Your task to perform on an android device: Open Amazon Image 0: 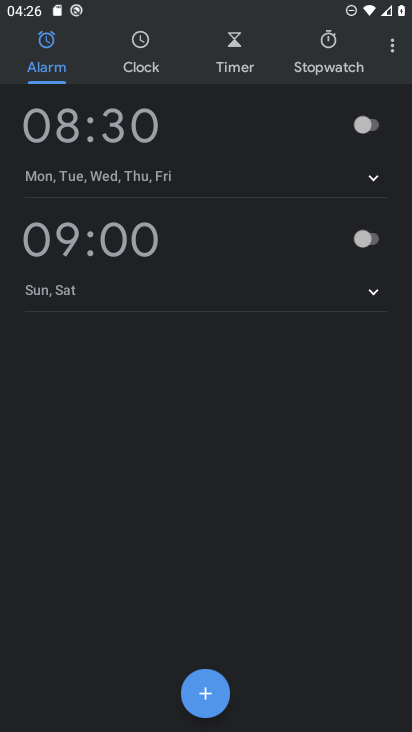
Step 0: press home button
Your task to perform on an android device: Open Amazon Image 1: 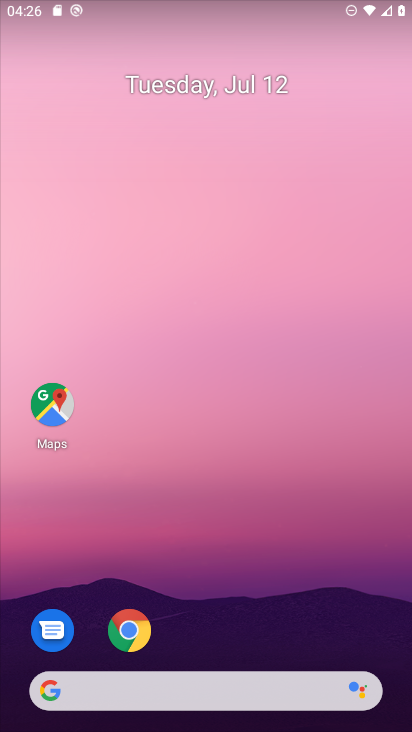
Step 1: click (128, 632)
Your task to perform on an android device: Open Amazon Image 2: 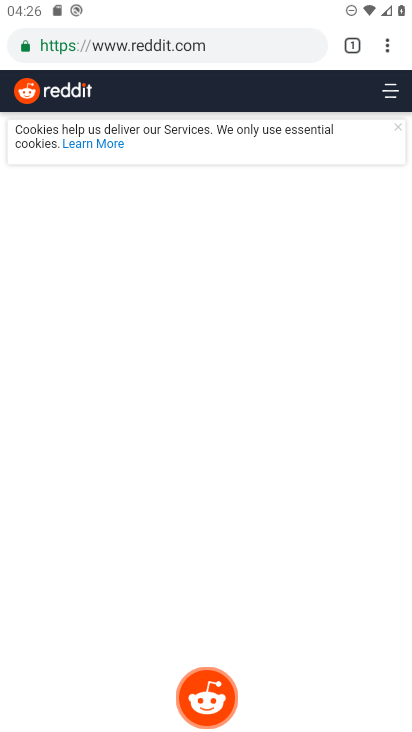
Step 2: click (223, 43)
Your task to perform on an android device: Open Amazon Image 3: 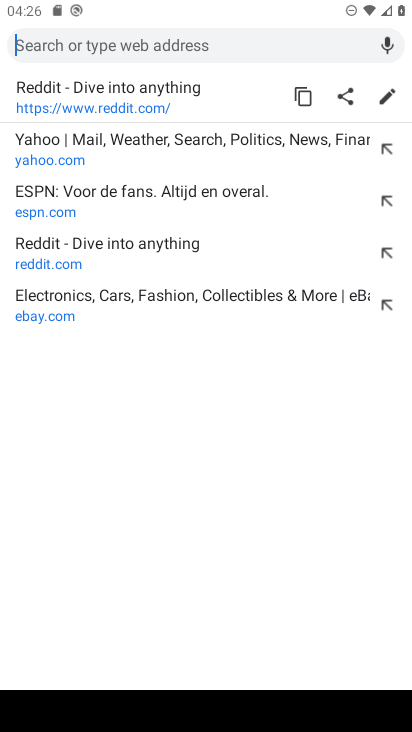
Step 3: type "Amazon"
Your task to perform on an android device: Open Amazon Image 4: 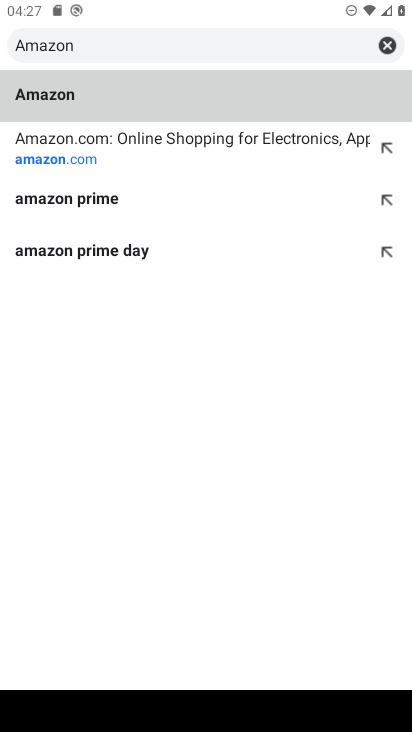
Step 4: click (79, 137)
Your task to perform on an android device: Open Amazon Image 5: 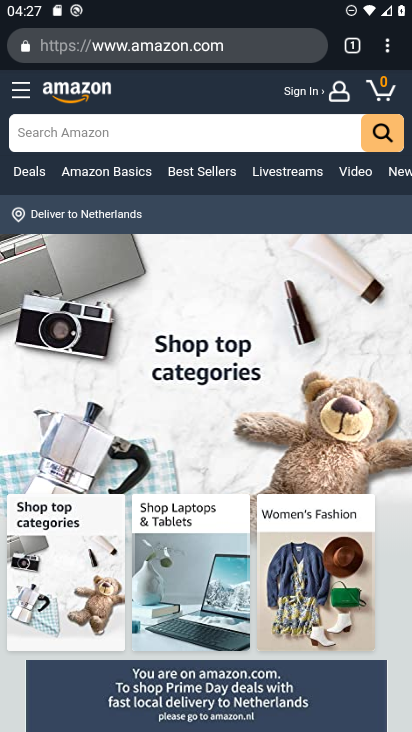
Step 5: task complete